Your task to perform on an android device: Show me popular games on the Play Store Image 0: 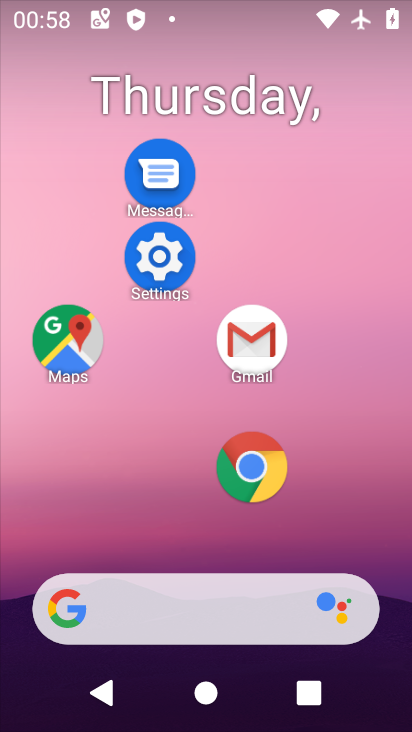
Step 0: click (288, 329)
Your task to perform on an android device: Show me popular games on the Play Store Image 1: 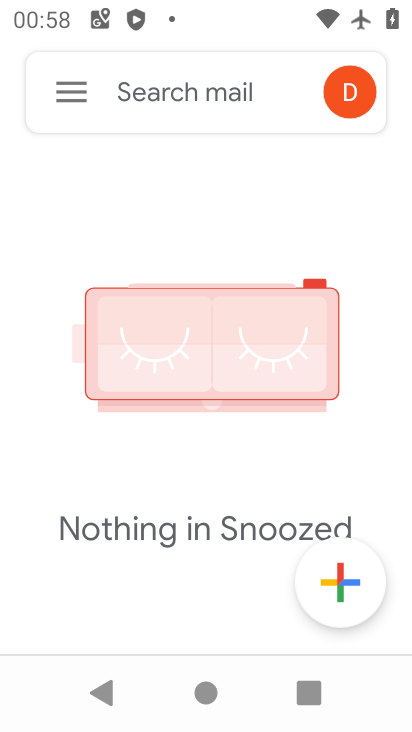
Step 1: press home button
Your task to perform on an android device: Show me popular games on the Play Store Image 2: 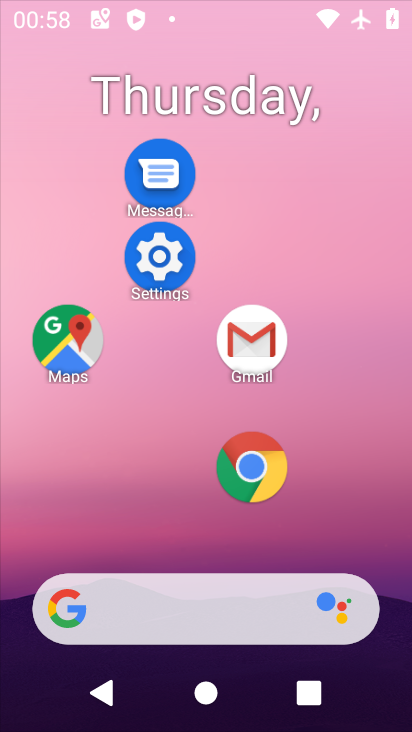
Step 2: drag from (261, 592) to (278, 173)
Your task to perform on an android device: Show me popular games on the Play Store Image 3: 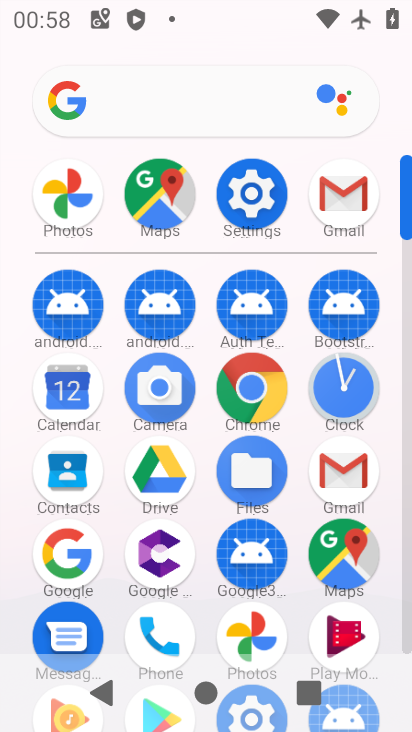
Step 3: drag from (186, 596) to (144, 92)
Your task to perform on an android device: Show me popular games on the Play Store Image 4: 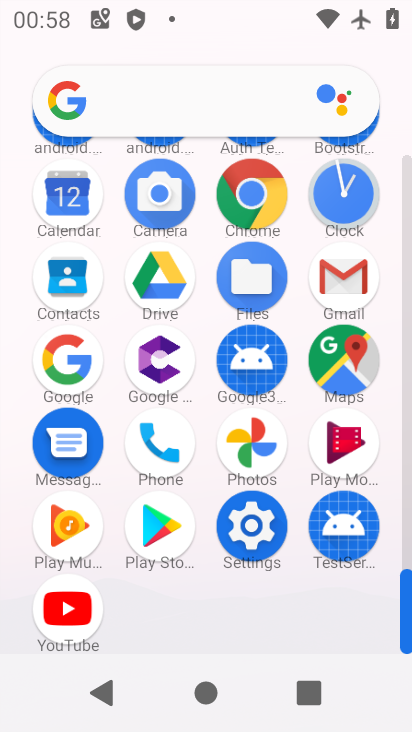
Step 4: click (151, 526)
Your task to perform on an android device: Show me popular games on the Play Store Image 5: 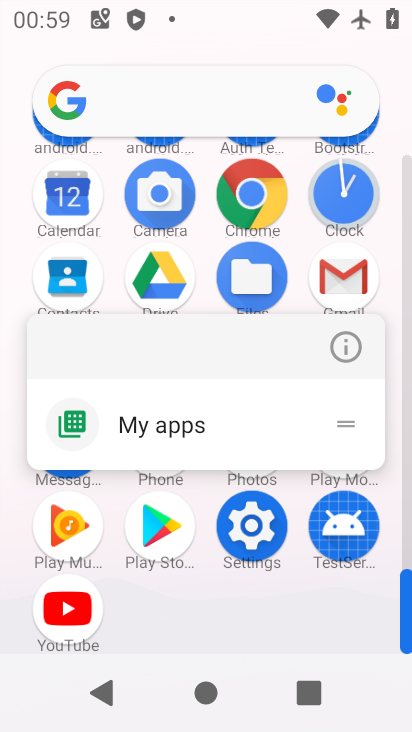
Step 5: click (346, 349)
Your task to perform on an android device: Show me popular games on the Play Store Image 6: 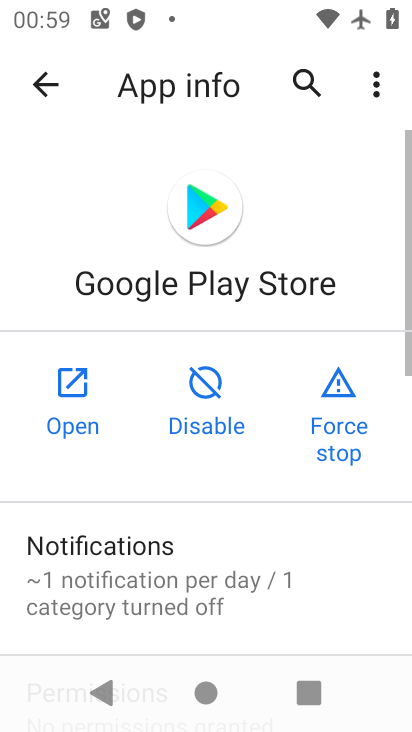
Step 6: click (67, 367)
Your task to perform on an android device: Show me popular games on the Play Store Image 7: 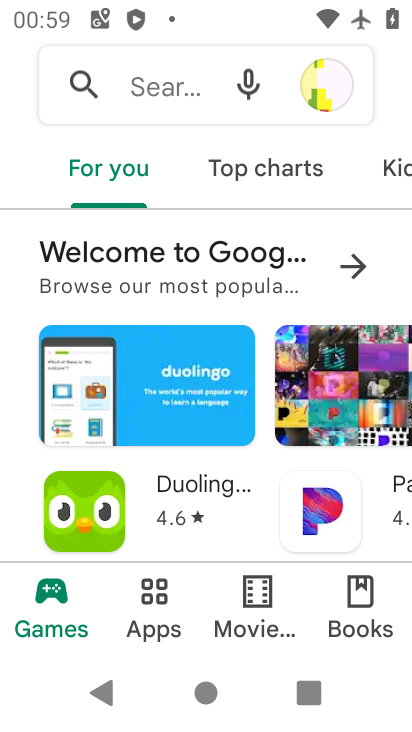
Step 7: drag from (265, 518) to (280, 201)
Your task to perform on an android device: Show me popular games on the Play Store Image 8: 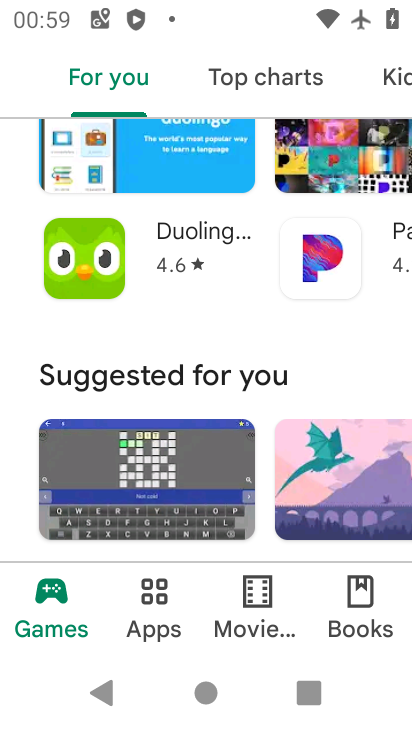
Step 8: drag from (255, 506) to (221, 124)
Your task to perform on an android device: Show me popular games on the Play Store Image 9: 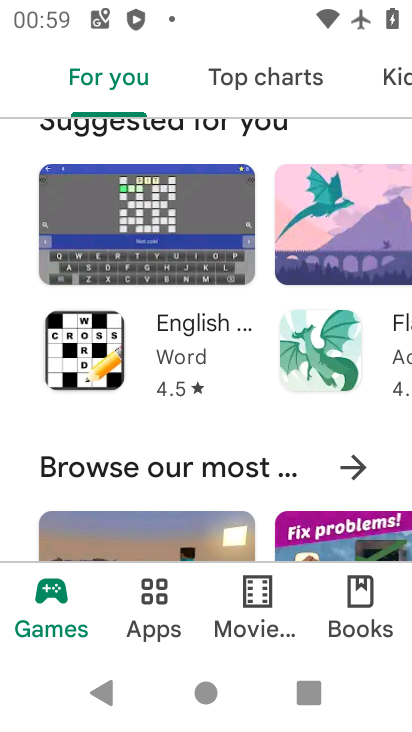
Step 9: drag from (278, 528) to (256, 163)
Your task to perform on an android device: Show me popular games on the Play Store Image 10: 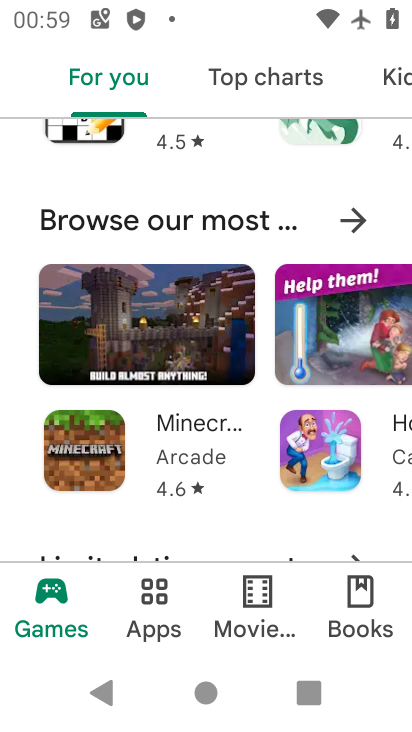
Step 10: drag from (269, 433) to (259, 233)
Your task to perform on an android device: Show me popular games on the Play Store Image 11: 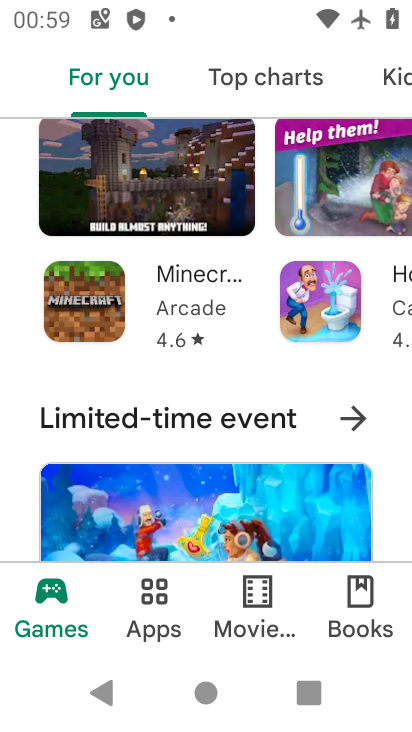
Step 11: drag from (251, 238) to (363, 701)
Your task to perform on an android device: Show me popular games on the Play Store Image 12: 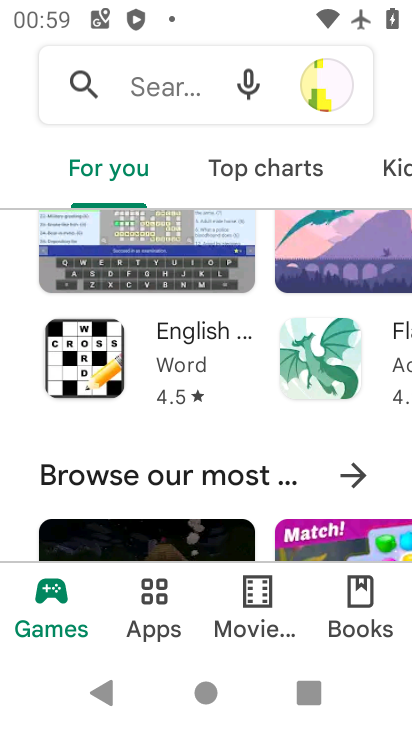
Step 12: click (119, 103)
Your task to perform on an android device: Show me popular games on the Play Store Image 13: 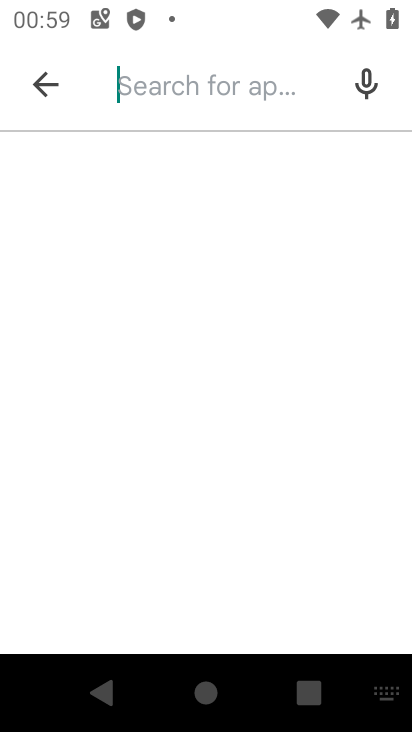
Step 13: click (38, 85)
Your task to perform on an android device: Show me popular games on the Play Store Image 14: 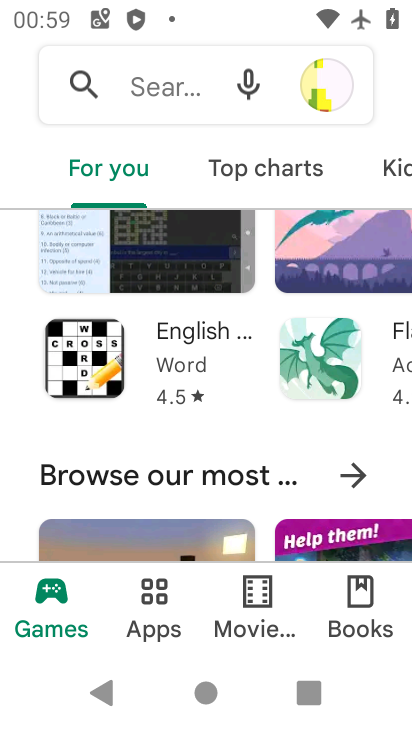
Step 14: drag from (180, 303) to (370, 724)
Your task to perform on an android device: Show me popular games on the Play Store Image 15: 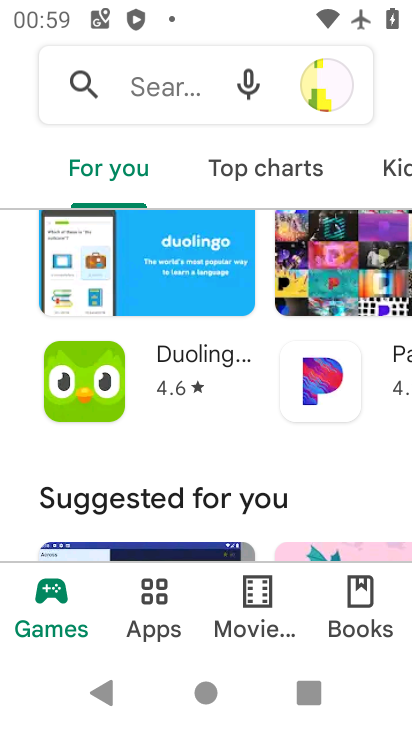
Step 15: drag from (204, 285) to (374, 647)
Your task to perform on an android device: Show me popular games on the Play Store Image 16: 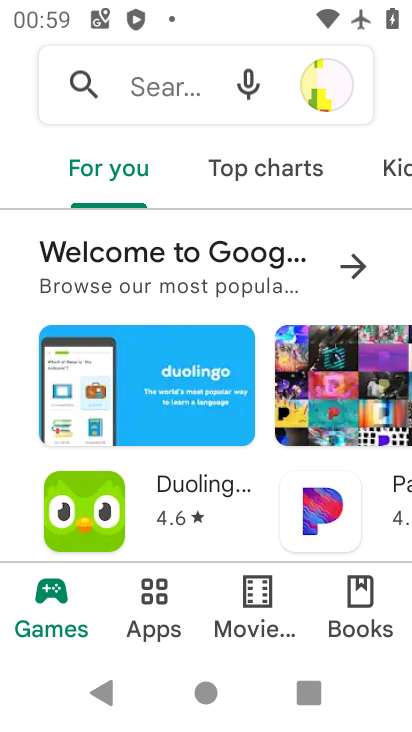
Step 16: drag from (190, 262) to (281, 527)
Your task to perform on an android device: Show me popular games on the Play Store Image 17: 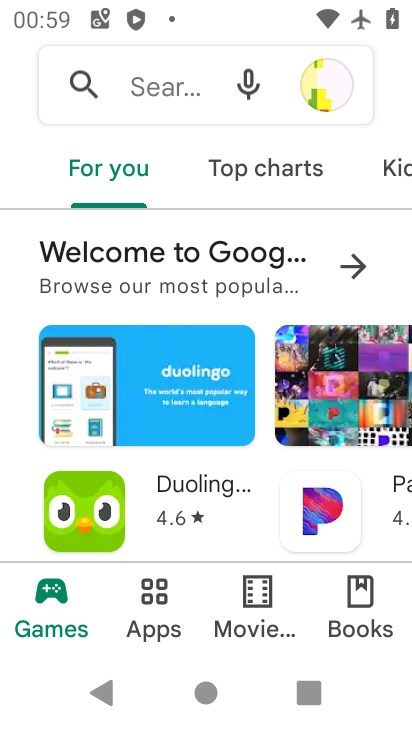
Step 17: drag from (270, 513) to (257, 89)
Your task to perform on an android device: Show me popular games on the Play Store Image 18: 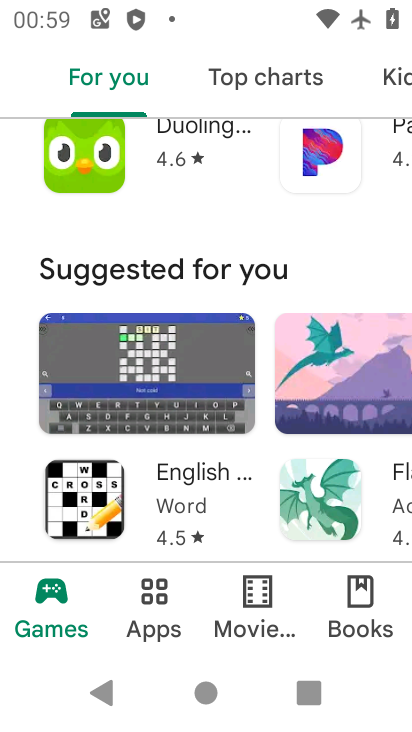
Step 18: drag from (250, 491) to (273, 119)
Your task to perform on an android device: Show me popular games on the Play Store Image 19: 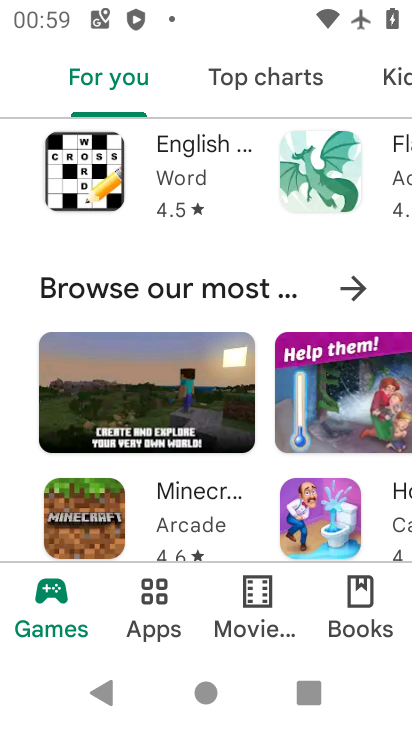
Step 19: drag from (234, 541) to (268, 192)
Your task to perform on an android device: Show me popular games on the Play Store Image 20: 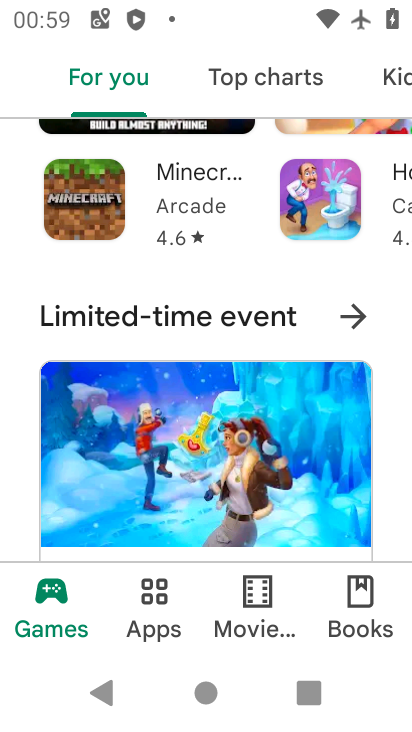
Step 20: drag from (251, 508) to (298, 128)
Your task to perform on an android device: Show me popular games on the Play Store Image 21: 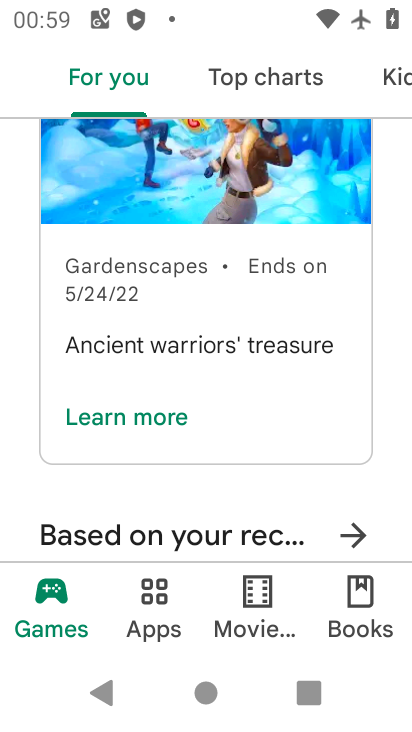
Step 21: drag from (262, 524) to (322, 157)
Your task to perform on an android device: Show me popular games on the Play Store Image 22: 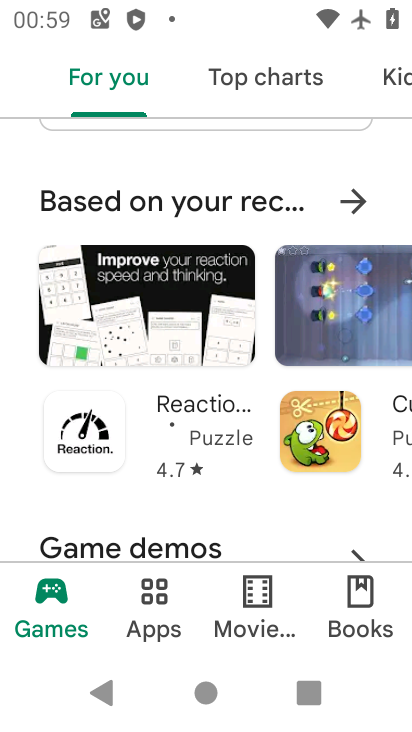
Step 22: drag from (253, 532) to (331, 168)
Your task to perform on an android device: Show me popular games on the Play Store Image 23: 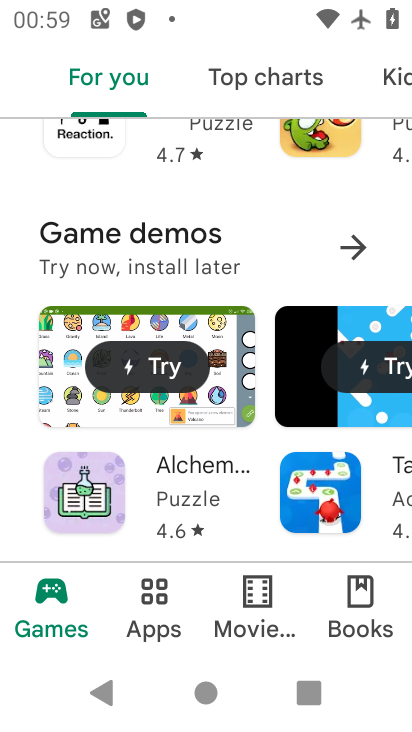
Step 23: drag from (239, 518) to (331, 116)
Your task to perform on an android device: Show me popular games on the Play Store Image 24: 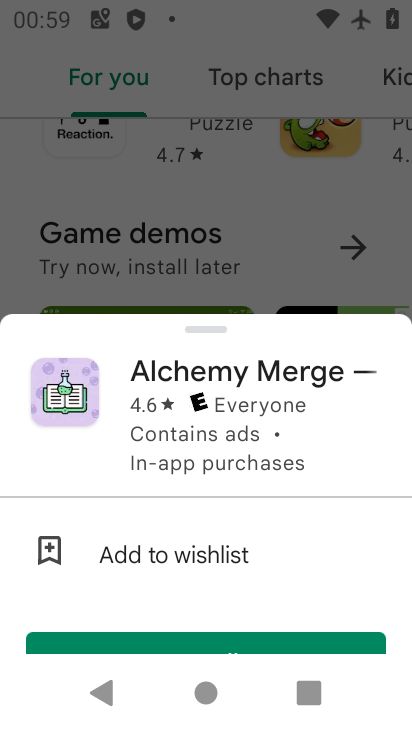
Step 24: click (230, 198)
Your task to perform on an android device: Show me popular games on the Play Store Image 25: 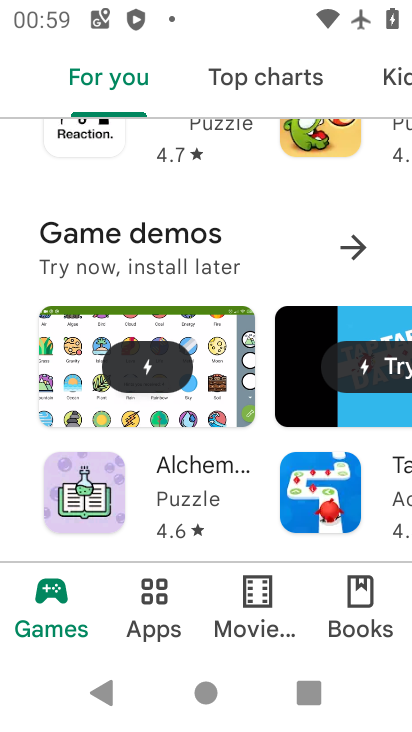
Step 25: click (371, 244)
Your task to perform on an android device: Show me popular games on the Play Store Image 26: 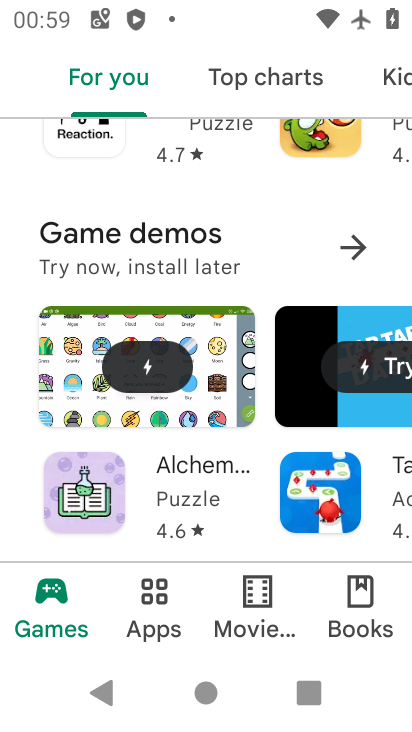
Step 26: click (349, 237)
Your task to perform on an android device: Show me popular games on the Play Store Image 27: 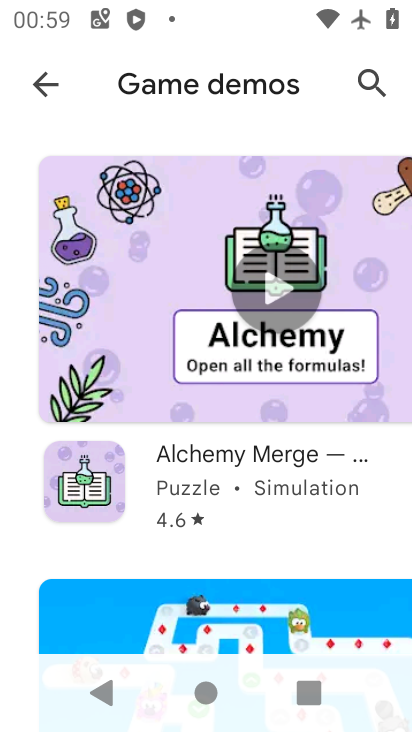
Step 27: task complete